Your task to perform on an android device: Open Reddit.com Image 0: 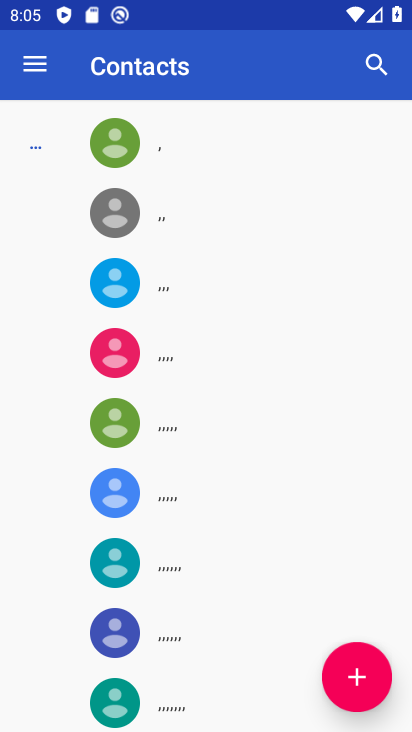
Step 0: press home button
Your task to perform on an android device: Open Reddit.com Image 1: 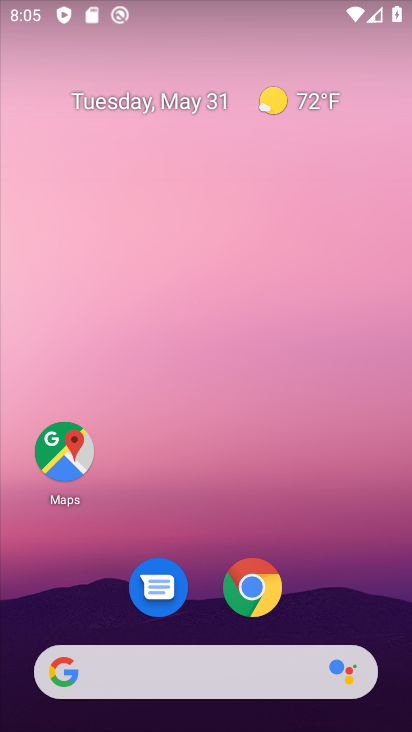
Step 1: click (164, 661)
Your task to perform on an android device: Open Reddit.com Image 2: 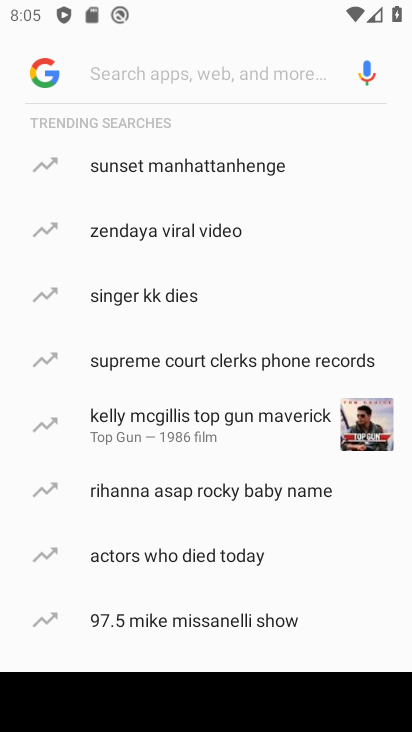
Step 2: type "reddit.com"
Your task to perform on an android device: Open Reddit.com Image 3: 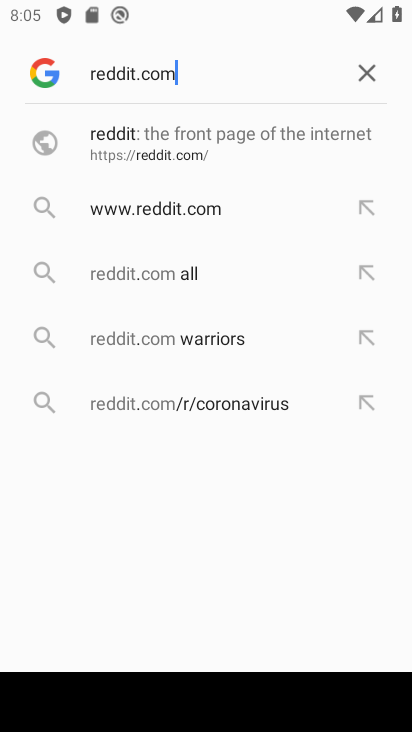
Step 3: click (266, 157)
Your task to perform on an android device: Open Reddit.com Image 4: 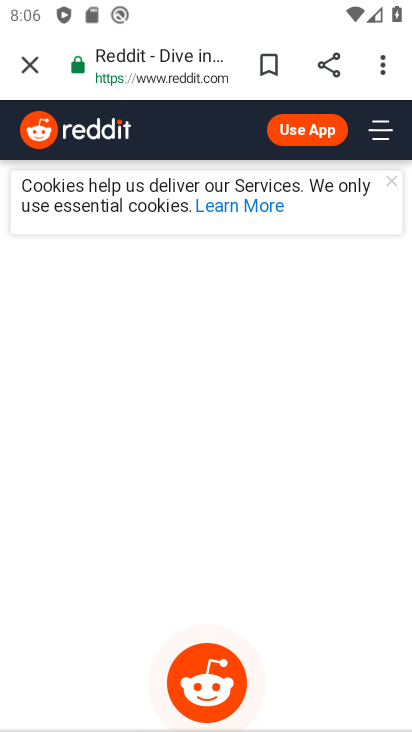
Step 4: task complete